Your task to perform on an android device: check storage Image 0: 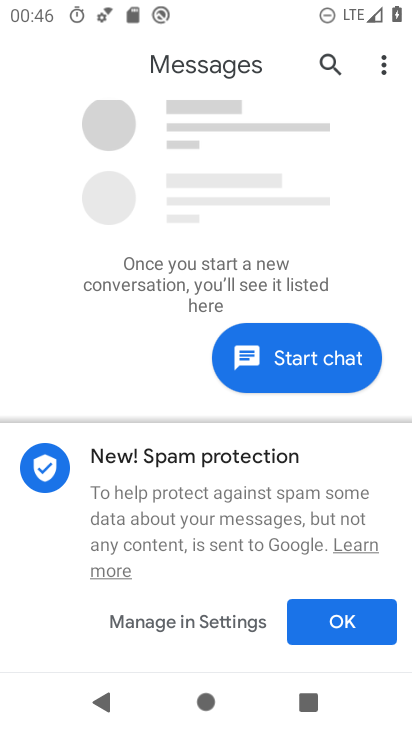
Step 0: press home button
Your task to perform on an android device: check storage Image 1: 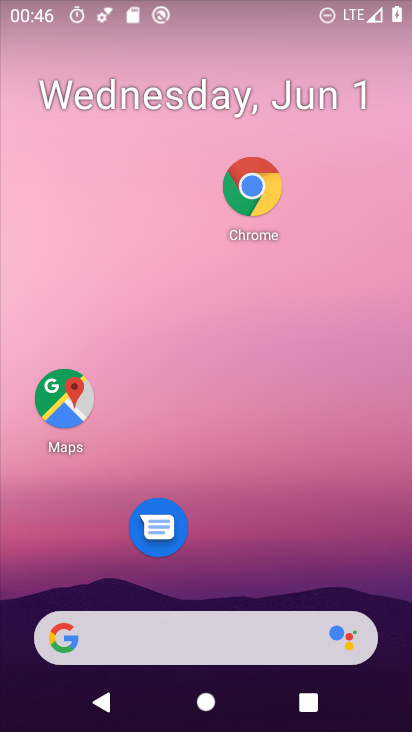
Step 1: drag from (205, 619) to (234, 22)
Your task to perform on an android device: check storage Image 2: 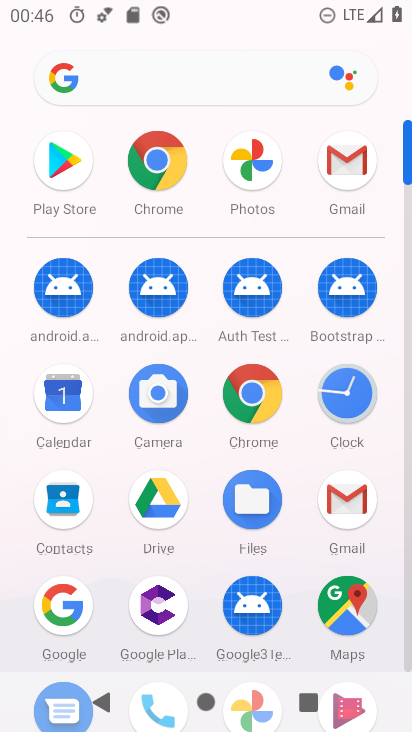
Step 2: click (358, 396)
Your task to perform on an android device: check storage Image 3: 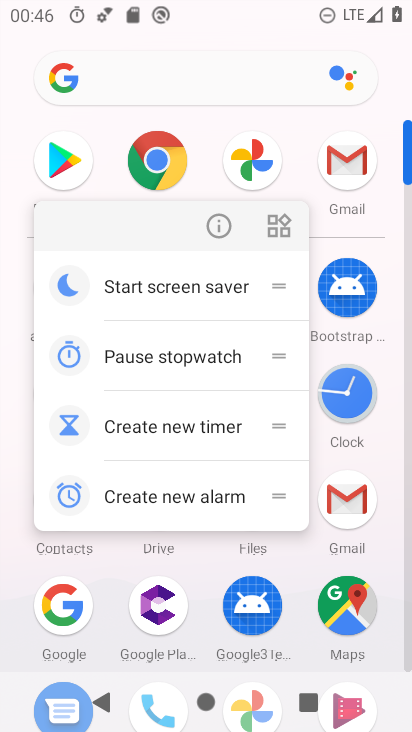
Step 3: click (302, 581)
Your task to perform on an android device: check storage Image 4: 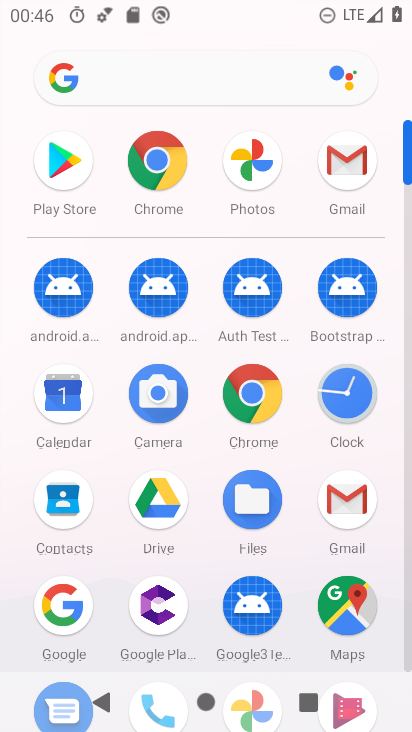
Step 4: drag from (175, 587) to (232, 281)
Your task to perform on an android device: check storage Image 5: 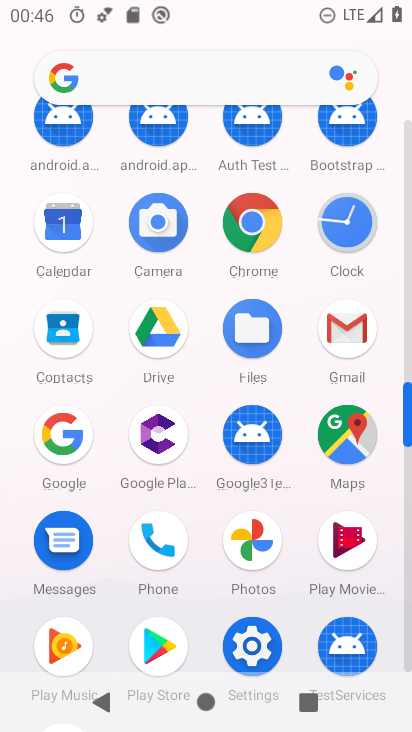
Step 5: click (237, 649)
Your task to perform on an android device: check storage Image 6: 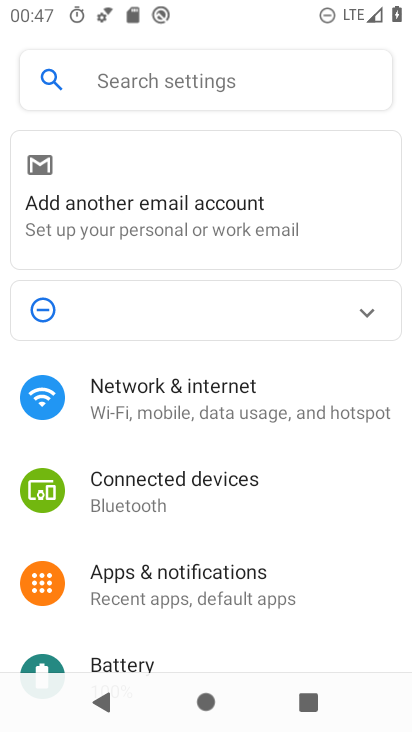
Step 6: drag from (195, 625) to (360, 0)
Your task to perform on an android device: check storage Image 7: 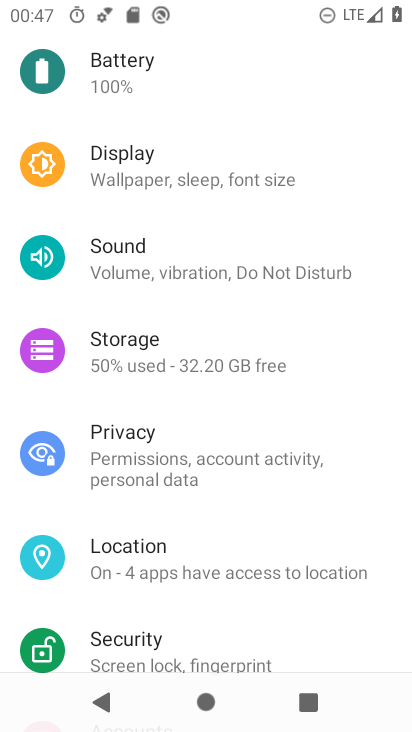
Step 7: click (137, 335)
Your task to perform on an android device: check storage Image 8: 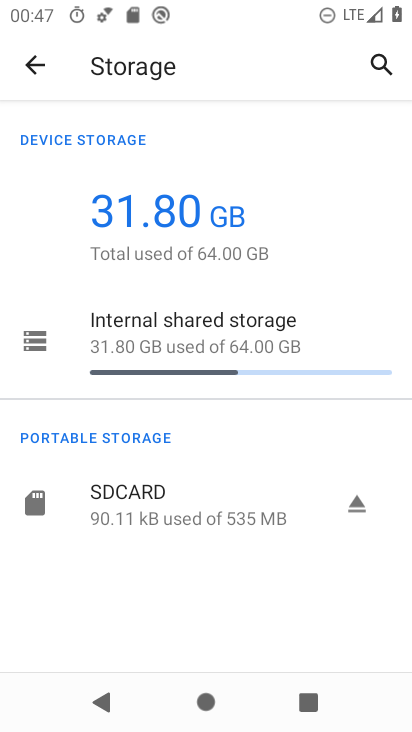
Step 8: task complete